Your task to perform on an android device: open app "Facebook" (install if not already installed) Image 0: 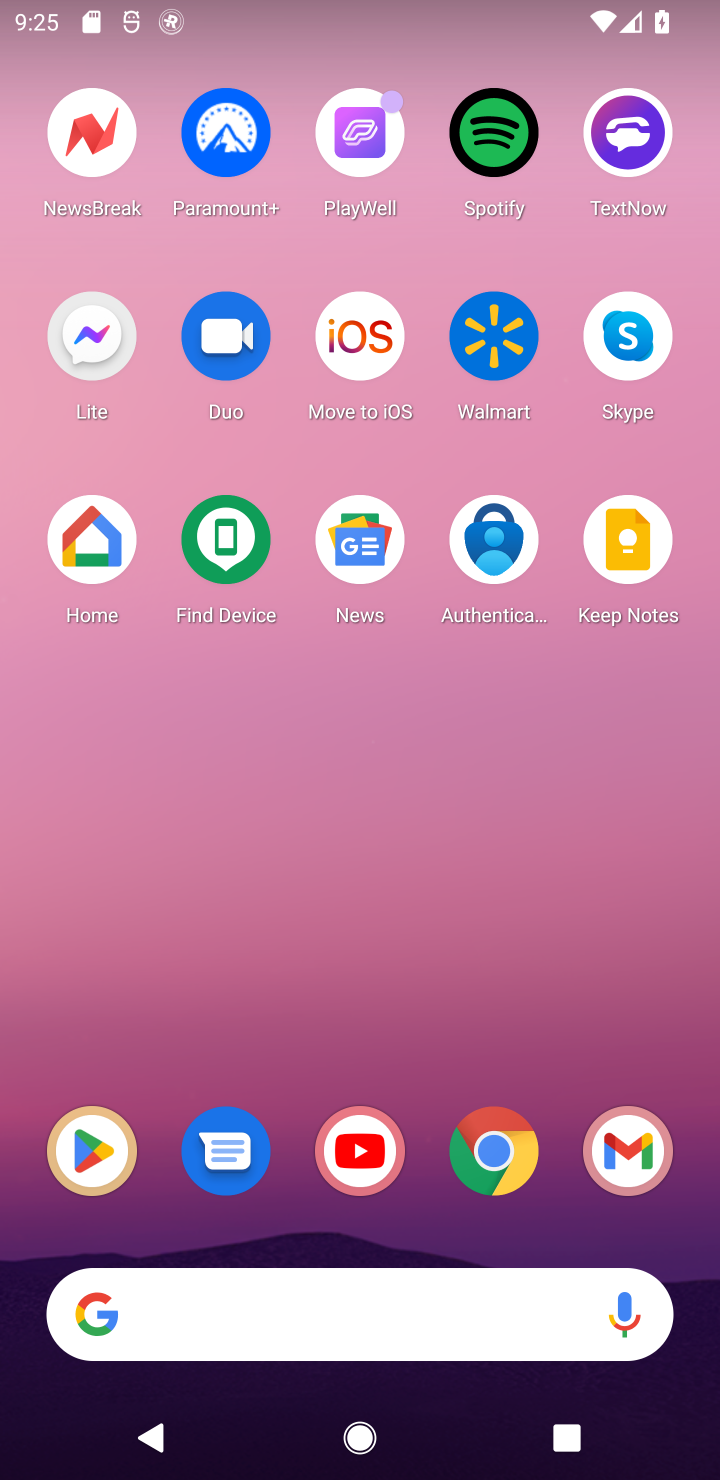
Step 0: click (94, 1159)
Your task to perform on an android device: open app "Facebook" (install if not already installed) Image 1: 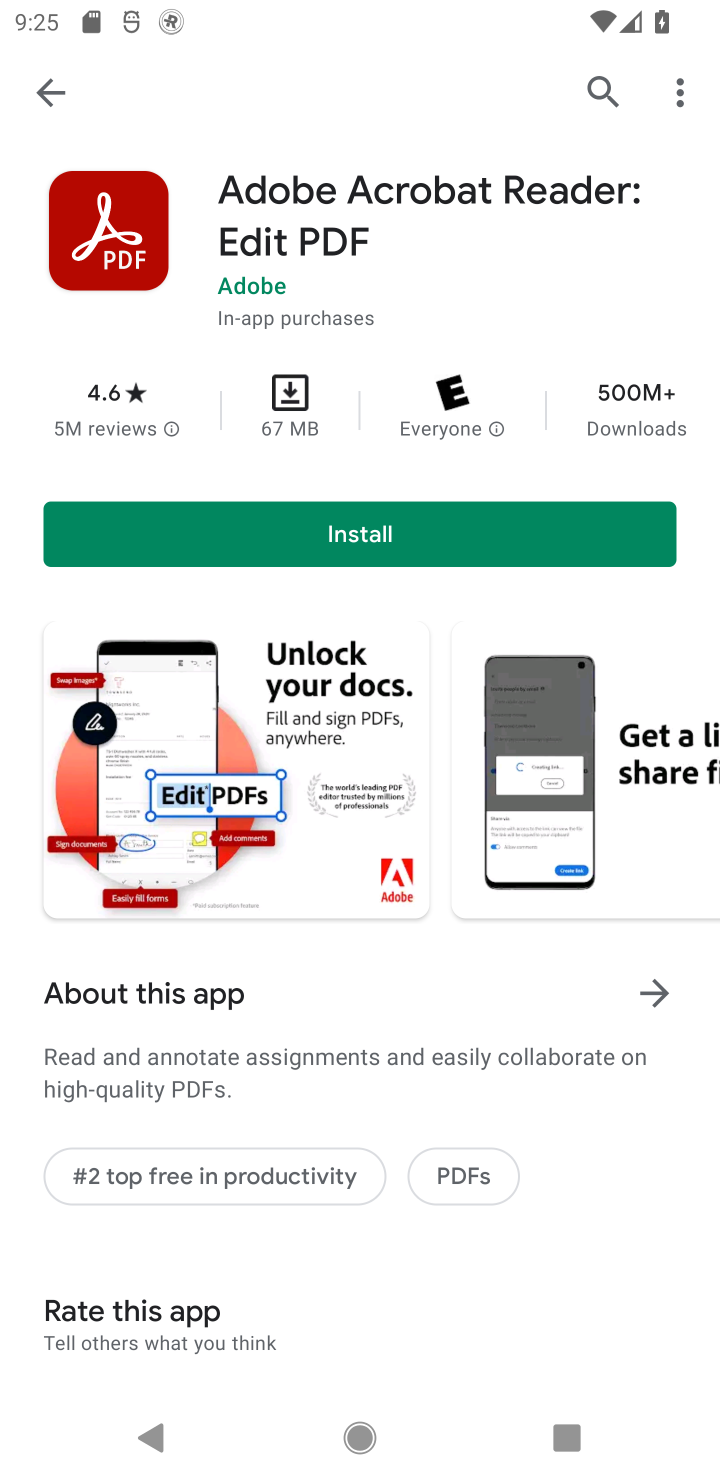
Step 1: click (595, 88)
Your task to perform on an android device: open app "Facebook" (install if not already installed) Image 2: 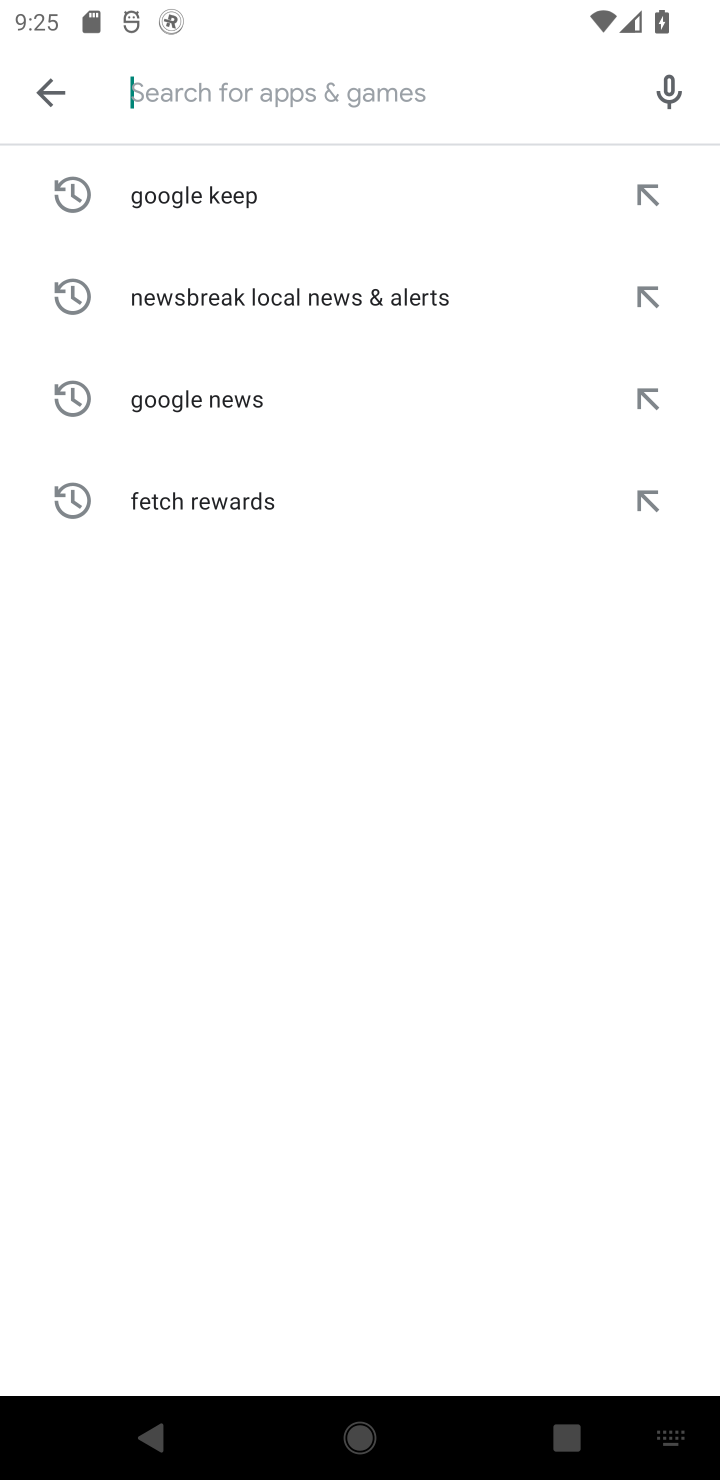
Step 2: type "Facebook"
Your task to perform on an android device: open app "Facebook" (install if not already installed) Image 3: 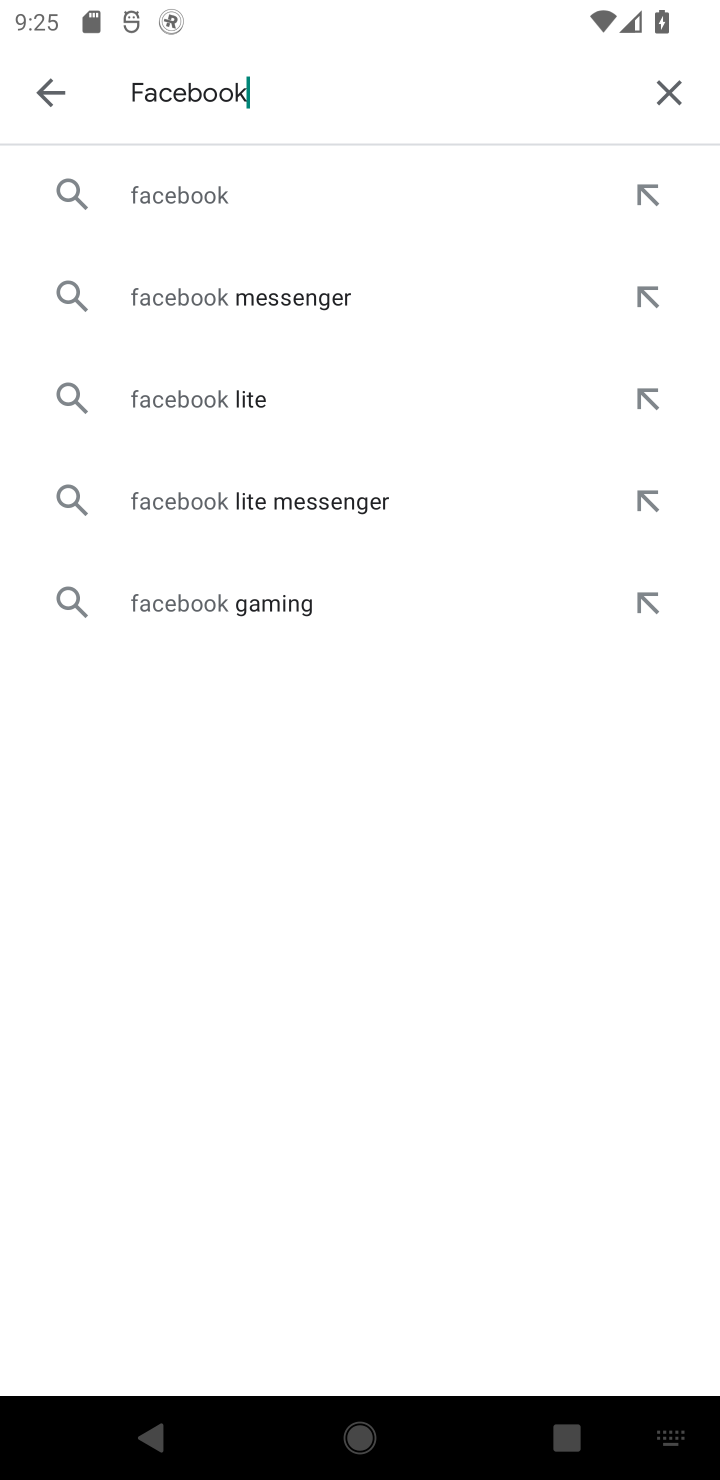
Step 3: click (183, 201)
Your task to perform on an android device: open app "Facebook" (install if not already installed) Image 4: 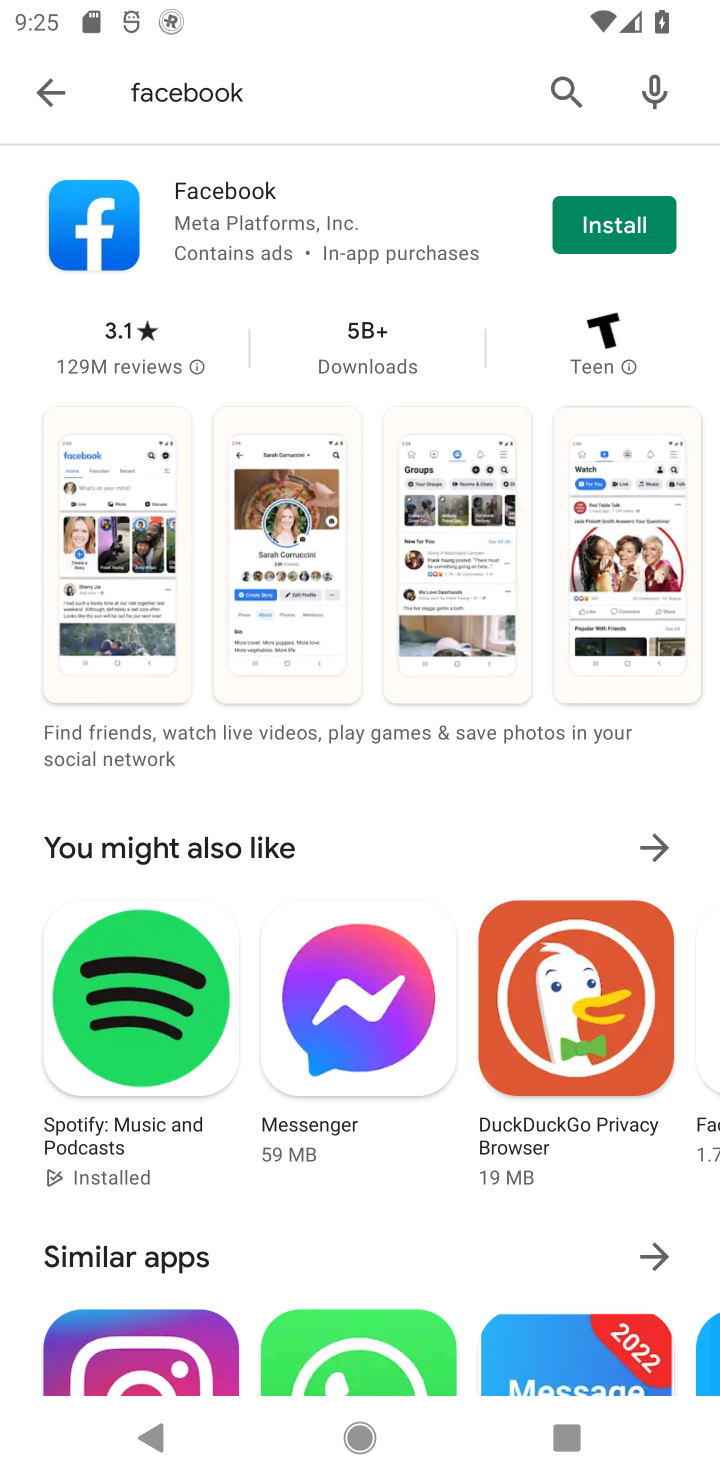
Step 4: click (554, 223)
Your task to perform on an android device: open app "Facebook" (install if not already installed) Image 5: 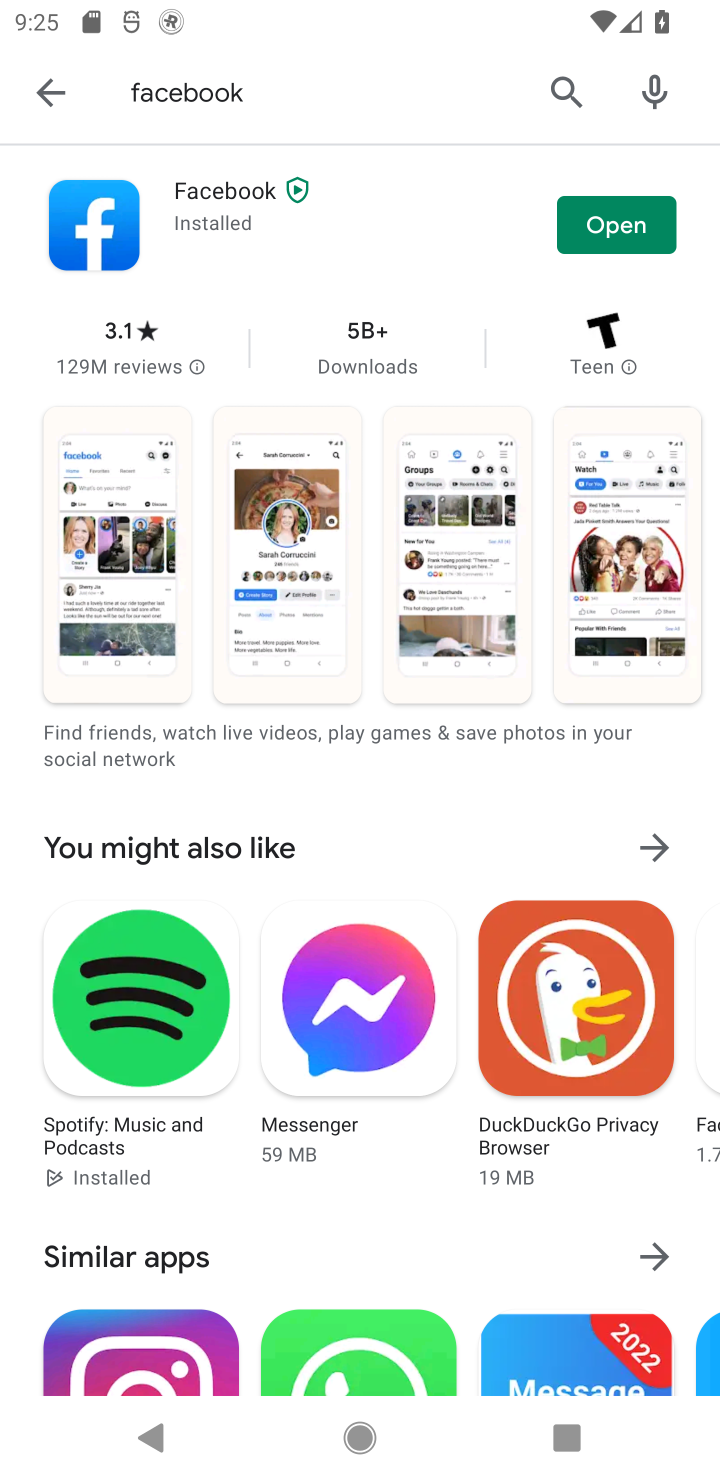
Step 5: click (612, 216)
Your task to perform on an android device: open app "Facebook" (install if not already installed) Image 6: 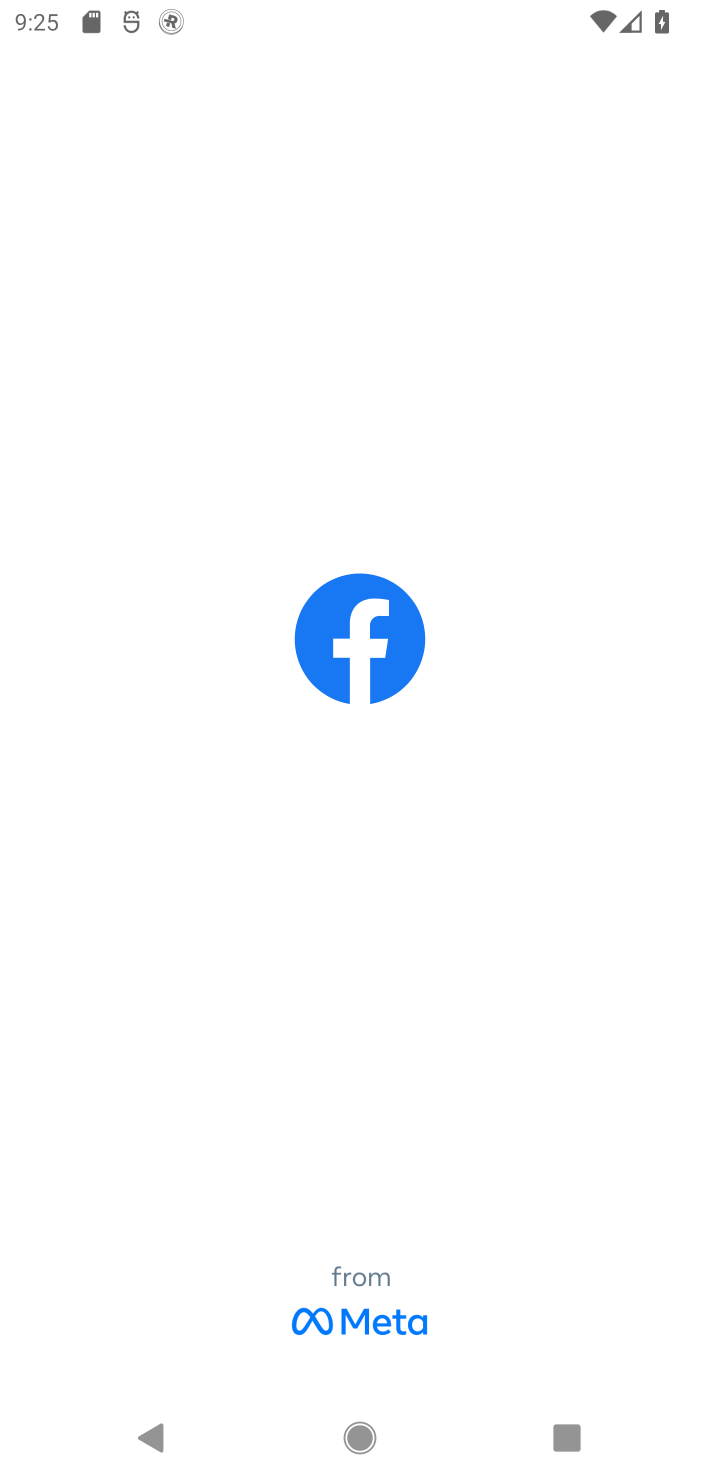
Step 6: task complete